Your task to perform on an android device: all mails in gmail Image 0: 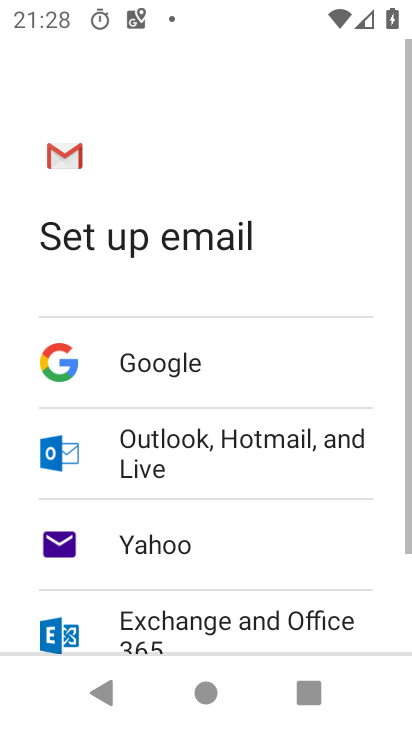
Step 0: press home button
Your task to perform on an android device: all mails in gmail Image 1: 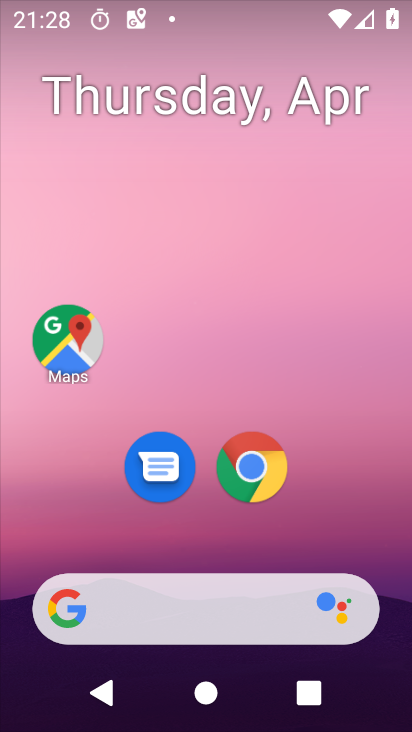
Step 1: drag from (214, 567) to (334, 624)
Your task to perform on an android device: all mails in gmail Image 2: 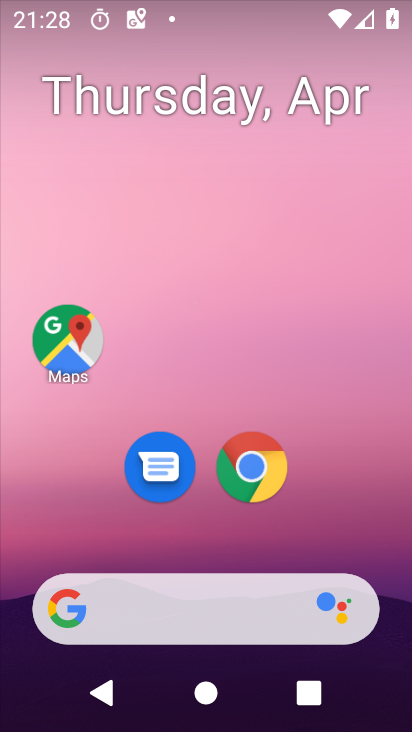
Step 2: drag from (228, 560) to (193, 33)
Your task to perform on an android device: all mails in gmail Image 3: 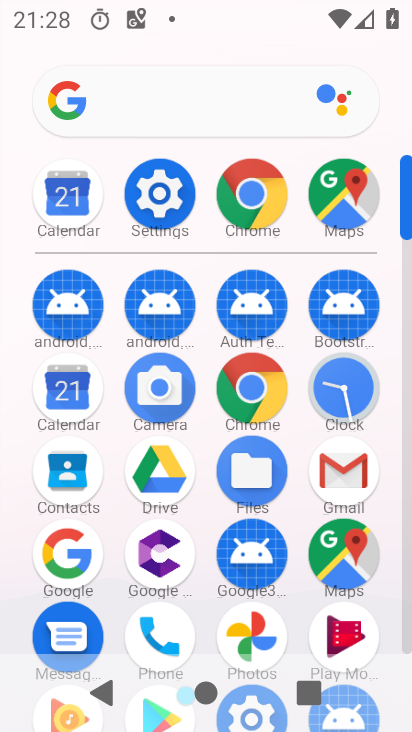
Step 3: click (355, 486)
Your task to perform on an android device: all mails in gmail Image 4: 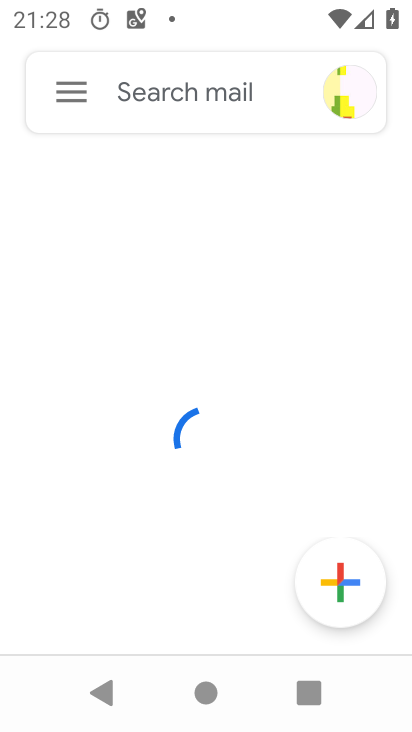
Step 4: click (72, 91)
Your task to perform on an android device: all mails in gmail Image 5: 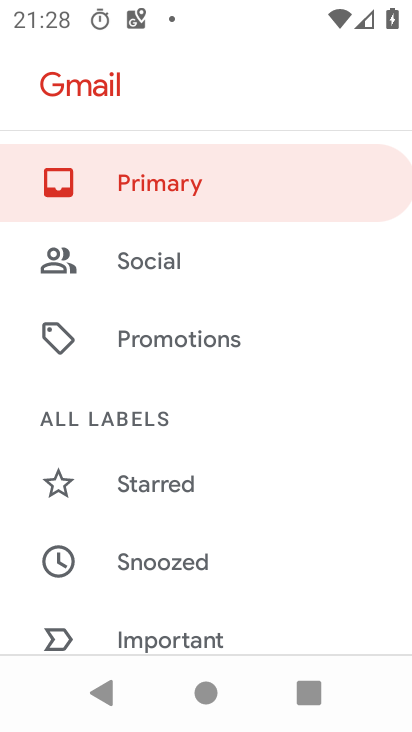
Step 5: drag from (165, 552) to (163, 149)
Your task to perform on an android device: all mails in gmail Image 6: 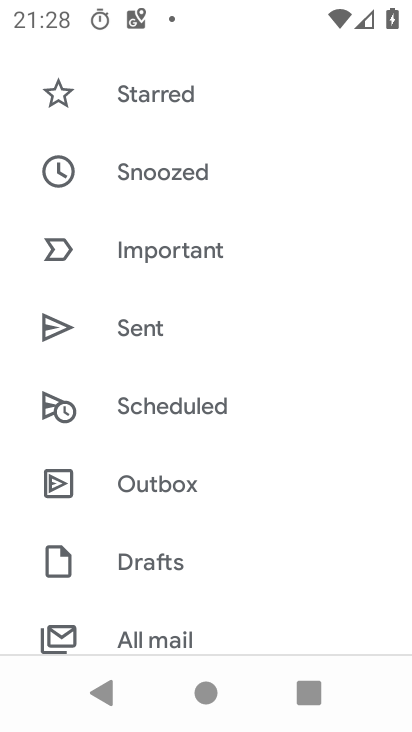
Step 6: click (150, 635)
Your task to perform on an android device: all mails in gmail Image 7: 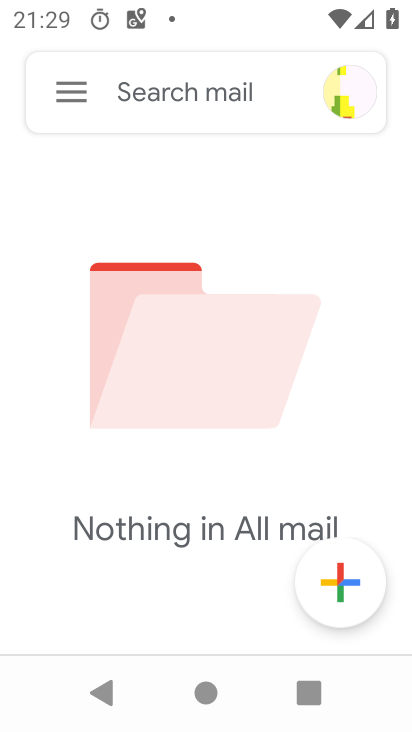
Step 7: task complete